Your task to perform on an android device: turn on priority inbox in the gmail app Image 0: 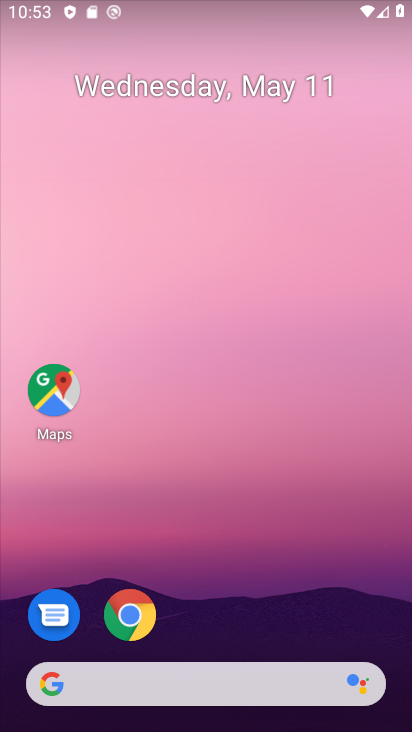
Step 0: drag from (170, 319) to (192, 42)
Your task to perform on an android device: turn on priority inbox in the gmail app Image 1: 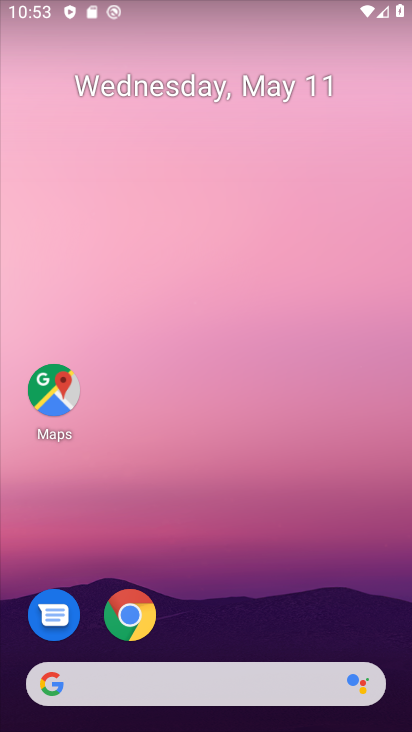
Step 1: drag from (227, 619) to (156, 207)
Your task to perform on an android device: turn on priority inbox in the gmail app Image 2: 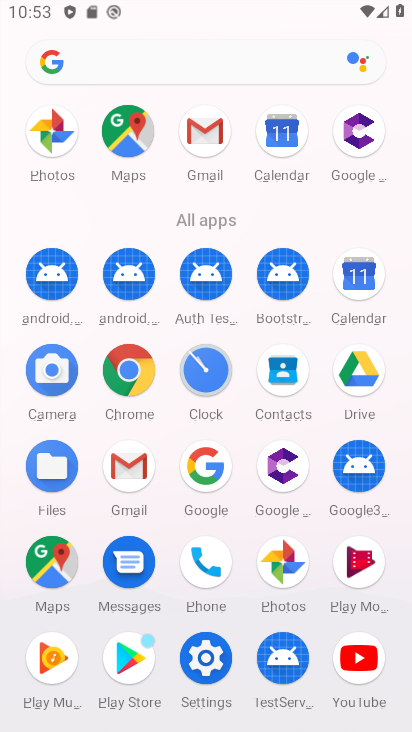
Step 2: click (193, 130)
Your task to perform on an android device: turn on priority inbox in the gmail app Image 3: 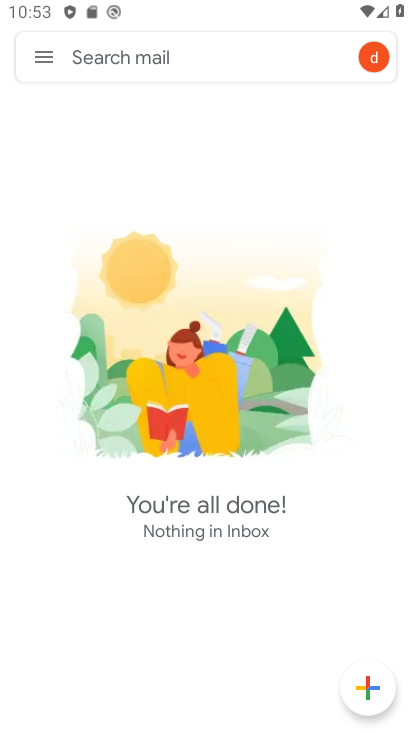
Step 3: click (45, 53)
Your task to perform on an android device: turn on priority inbox in the gmail app Image 4: 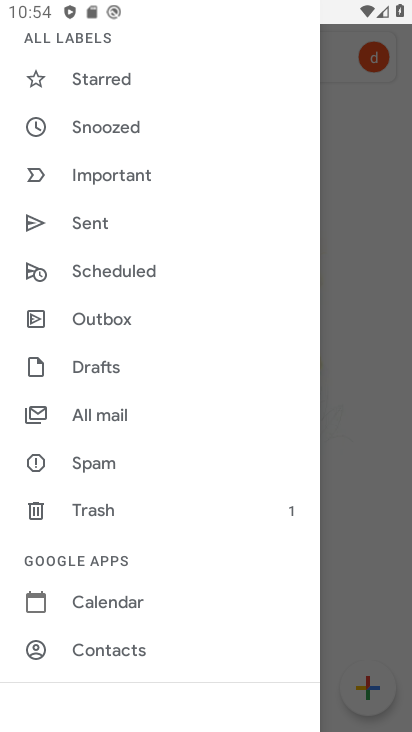
Step 4: drag from (150, 601) to (119, 284)
Your task to perform on an android device: turn on priority inbox in the gmail app Image 5: 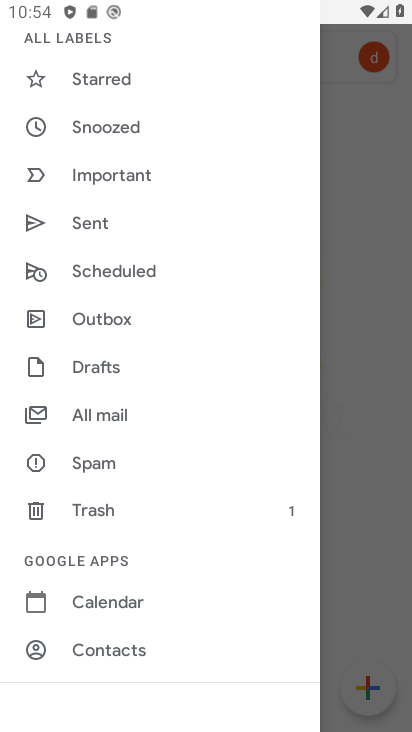
Step 5: drag from (190, 616) to (187, 275)
Your task to perform on an android device: turn on priority inbox in the gmail app Image 6: 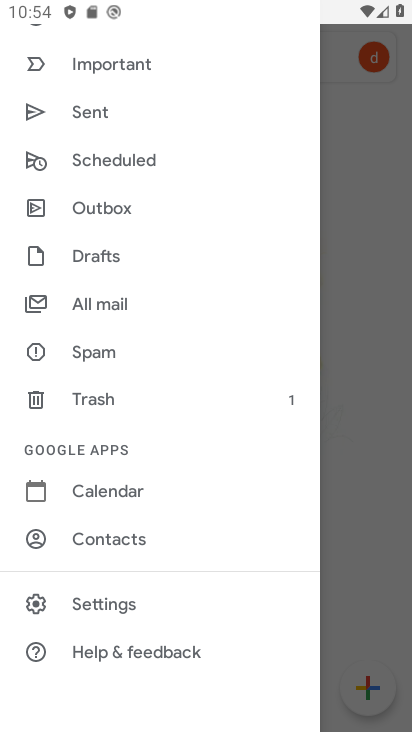
Step 6: click (99, 603)
Your task to perform on an android device: turn on priority inbox in the gmail app Image 7: 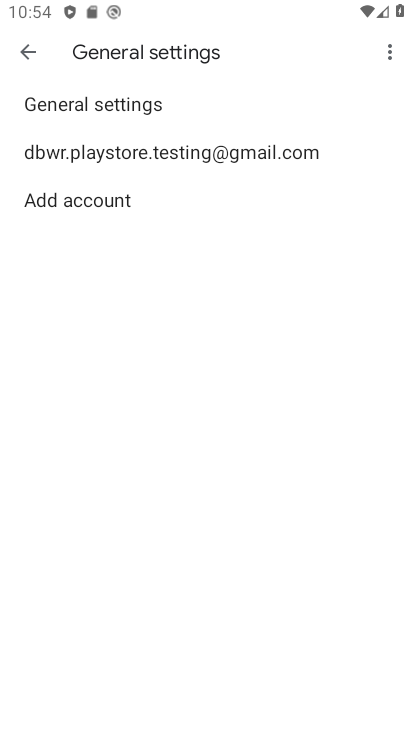
Step 7: click (95, 139)
Your task to perform on an android device: turn on priority inbox in the gmail app Image 8: 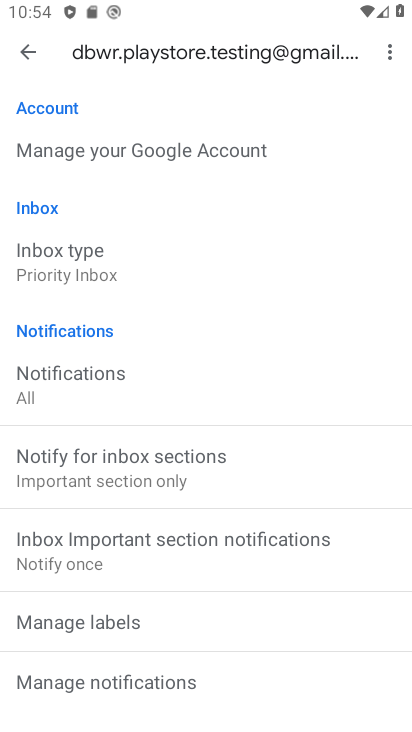
Step 8: click (73, 250)
Your task to perform on an android device: turn on priority inbox in the gmail app Image 9: 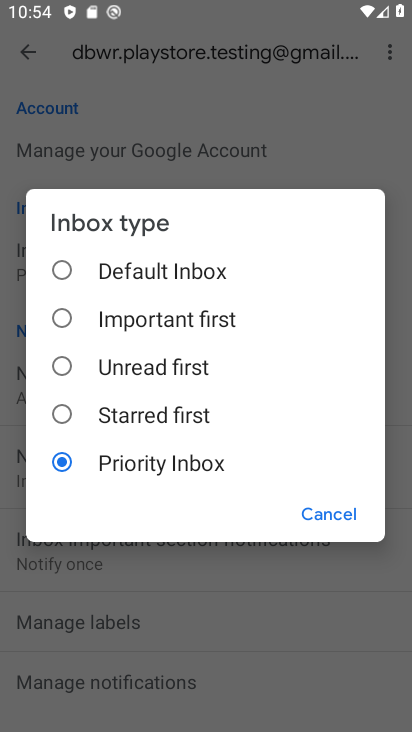
Step 9: task complete